Your task to perform on an android device: What's a good restaurant in Phoenix? Image 0: 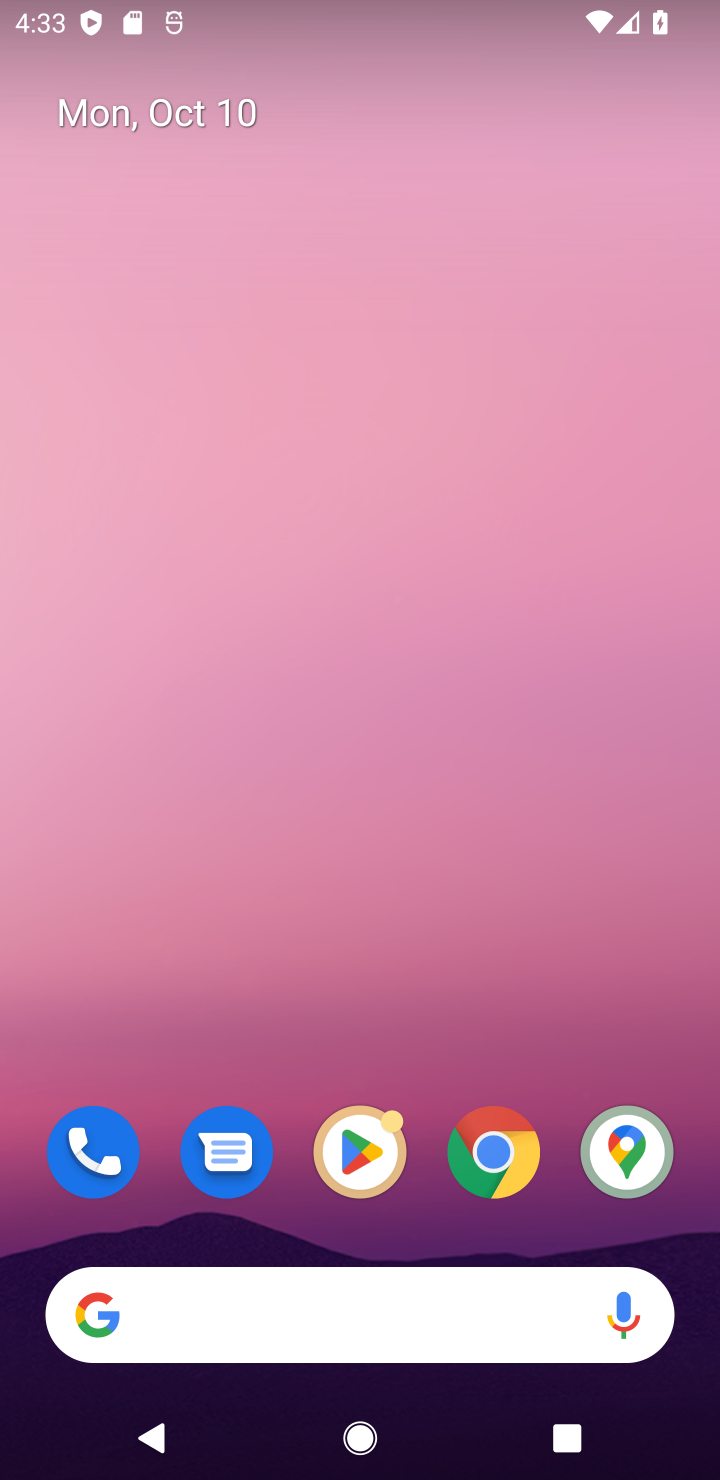
Step 0: click (491, 1161)
Your task to perform on an android device: What's a good restaurant in Phoenix? Image 1: 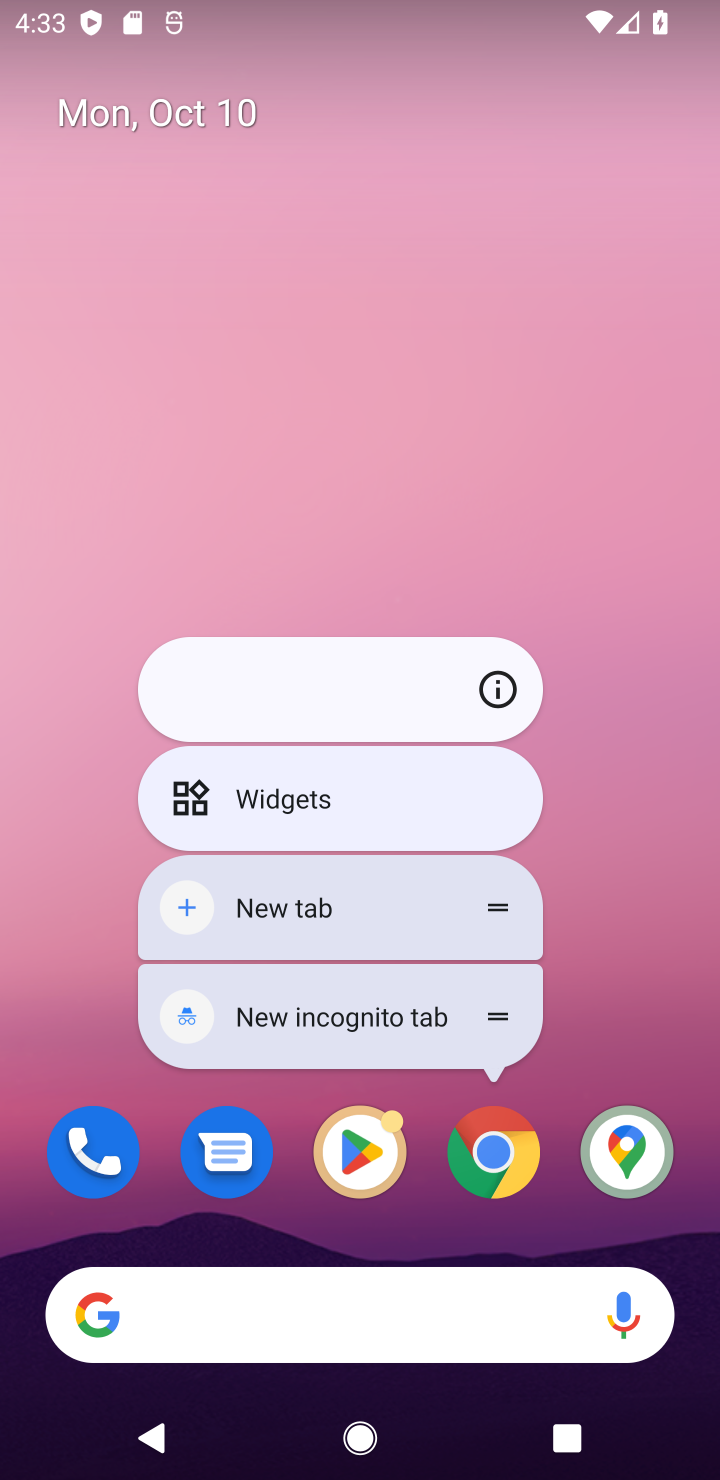
Step 1: click (495, 1156)
Your task to perform on an android device: What's a good restaurant in Phoenix? Image 2: 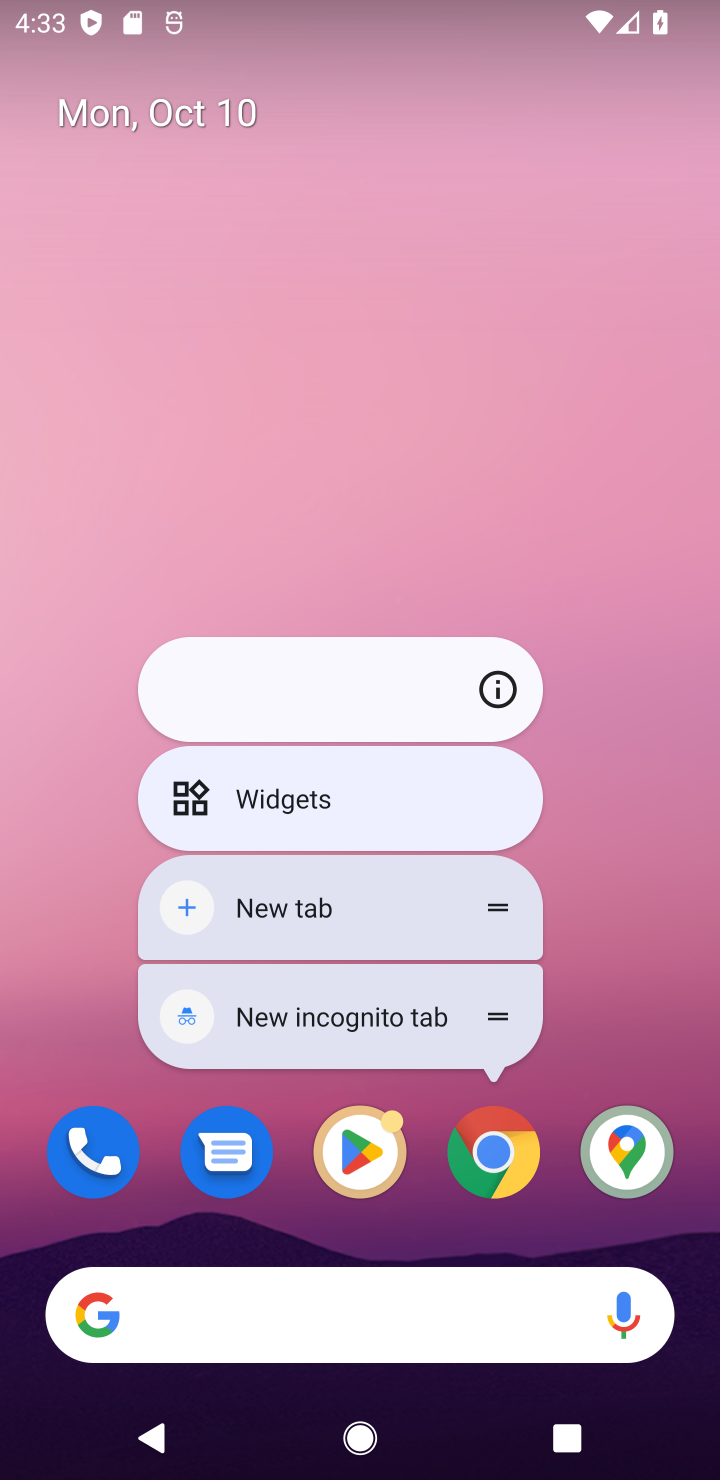
Step 2: click (495, 1156)
Your task to perform on an android device: What's a good restaurant in Phoenix? Image 3: 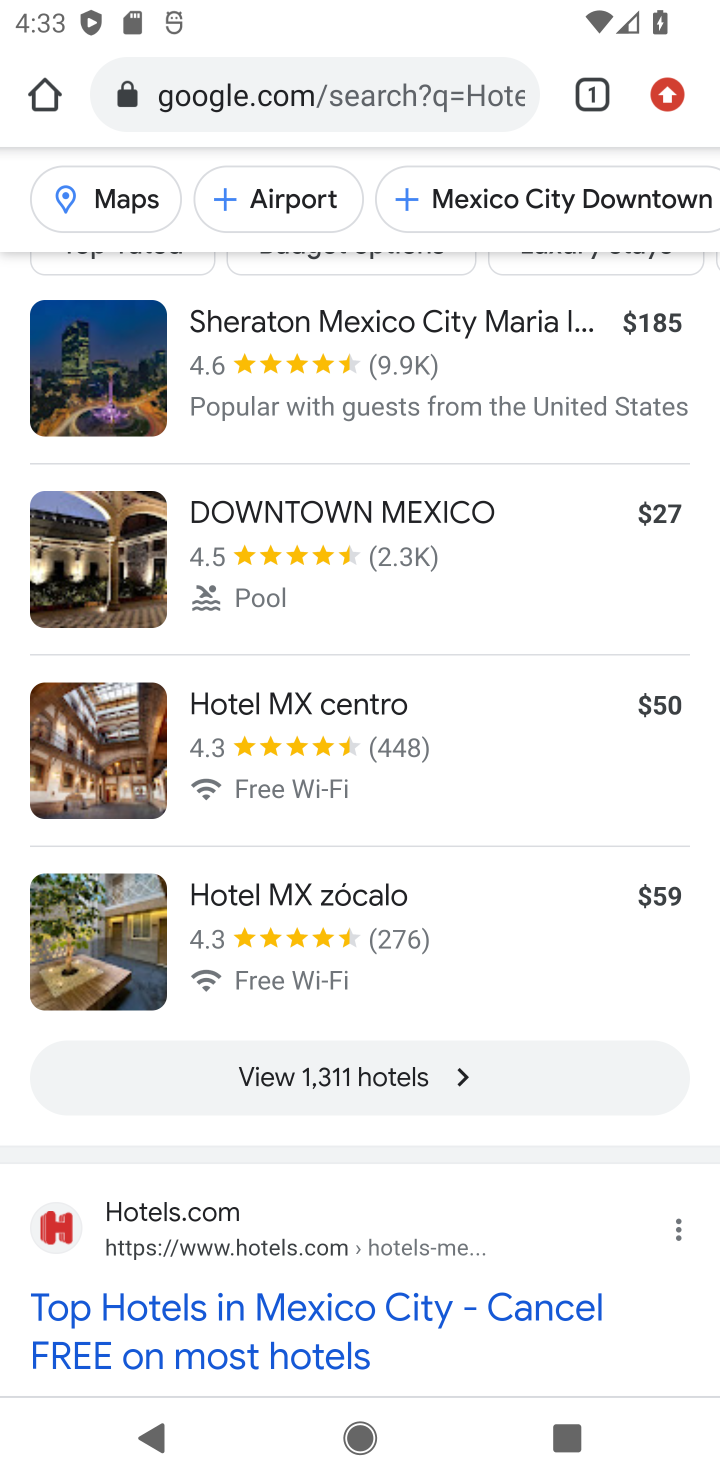
Step 3: click (478, 109)
Your task to perform on an android device: What's a good restaurant in Phoenix? Image 4: 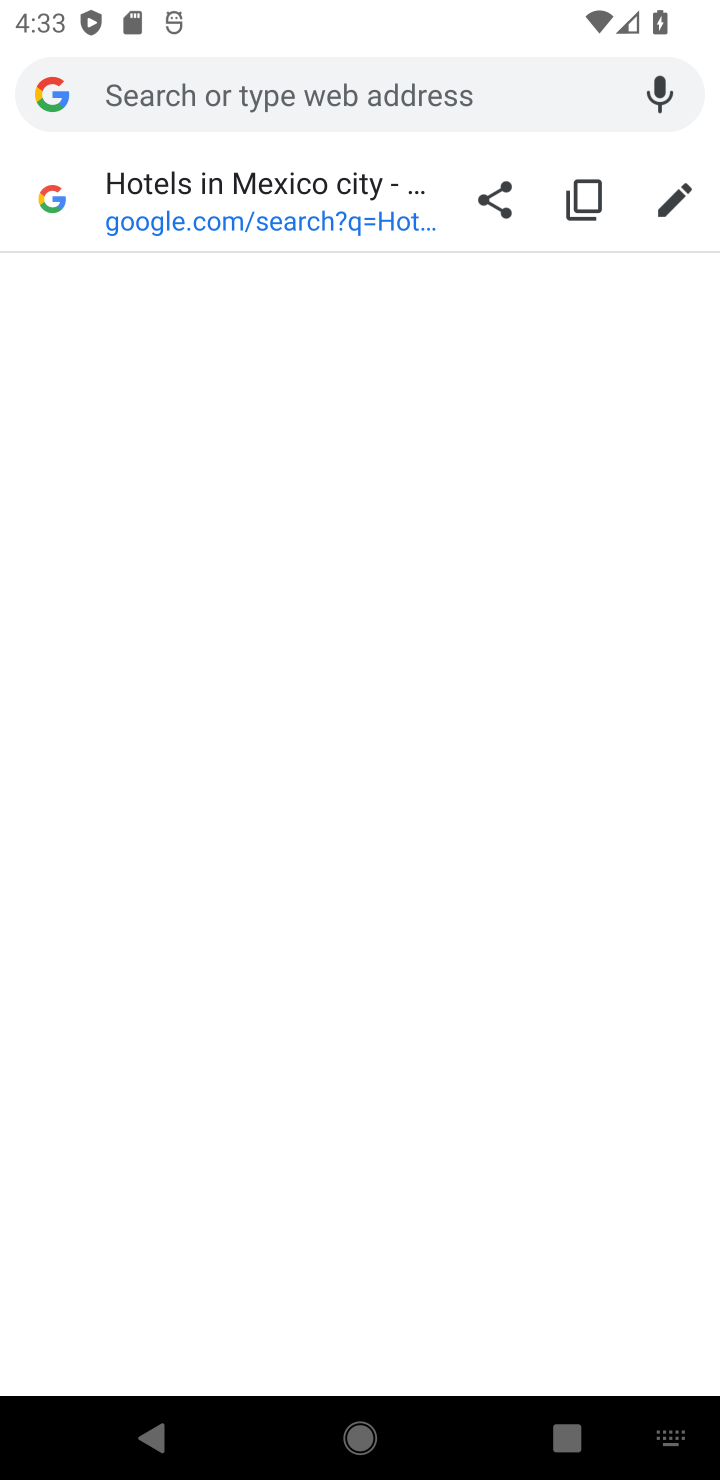
Step 4: type "good restaurant in Phoenix"
Your task to perform on an android device: What's a good restaurant in Phoenix? Image 5: 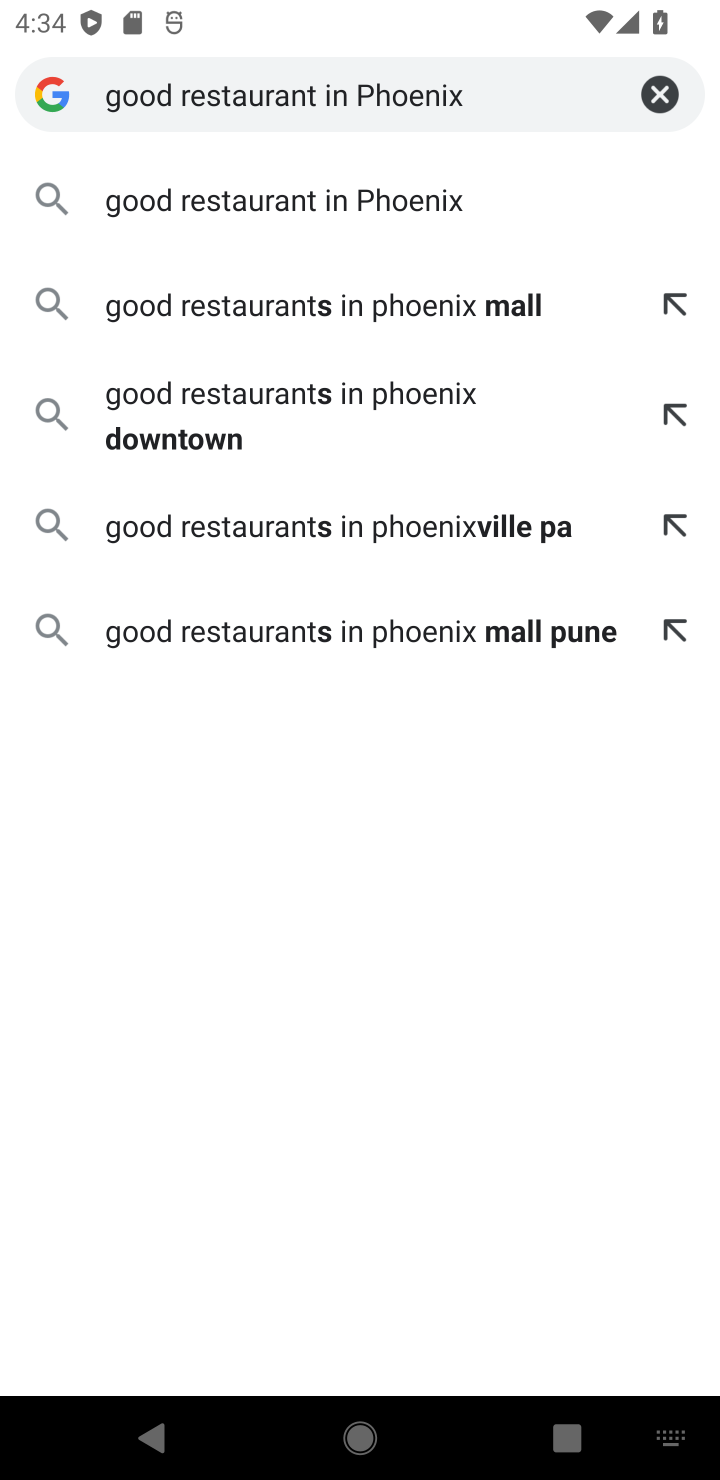
Step 5: click (380, 204)
Your task to perform on an android device: What's a good restaurant in Phoenix? Image 6: 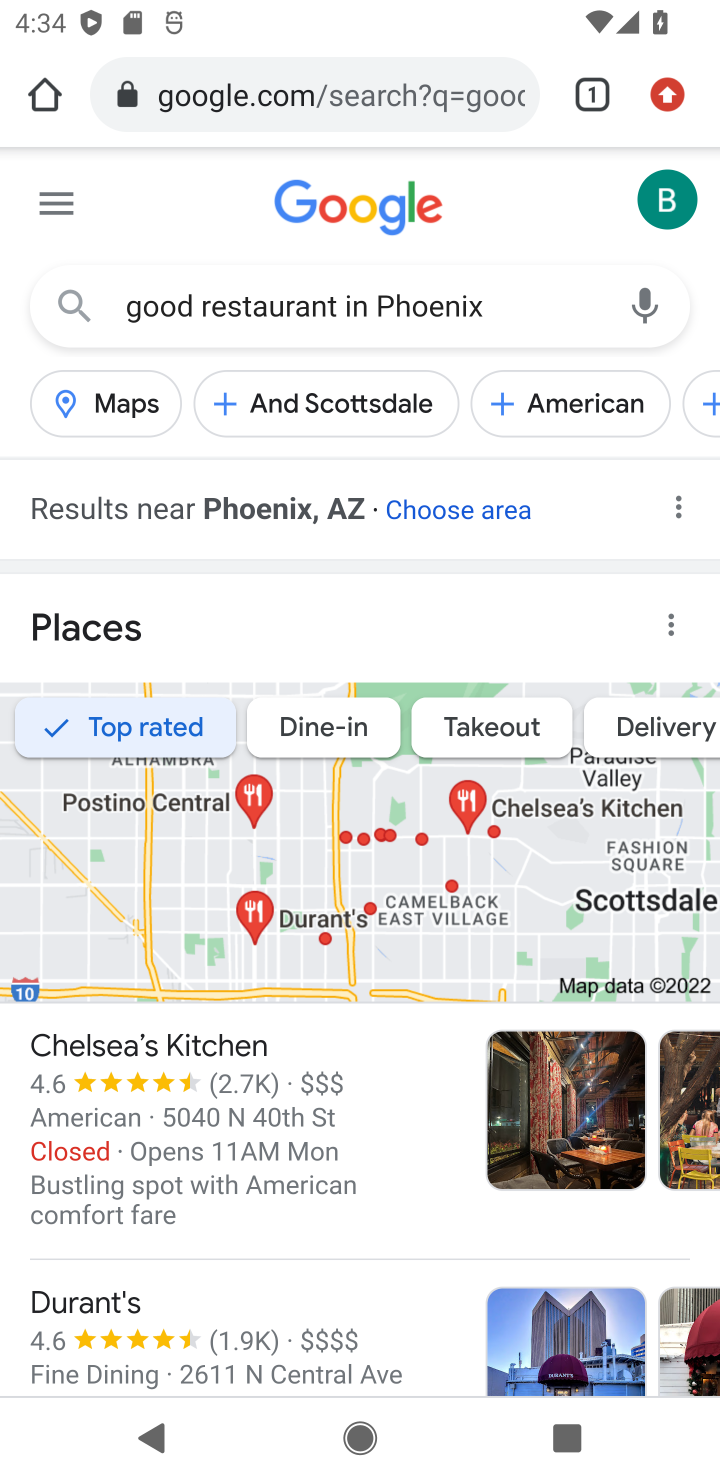
Step 6: task complete